Your task to perform on an android device: turn vacation reply on in the gmail app Image 0: 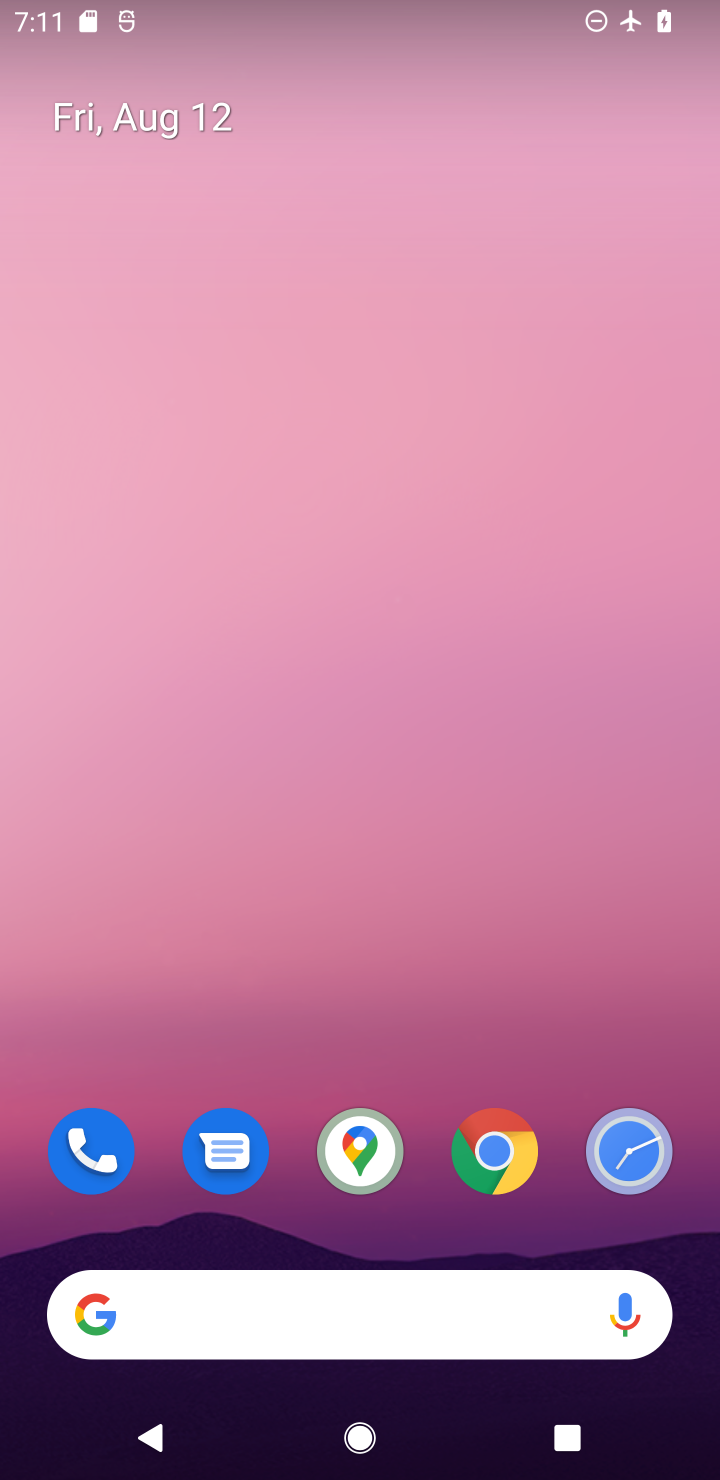
Step 0: drag from (540, 1014) to (522, 1)
Your task to perform on an android device: turn vacation reply on in the gmail app Image 1: 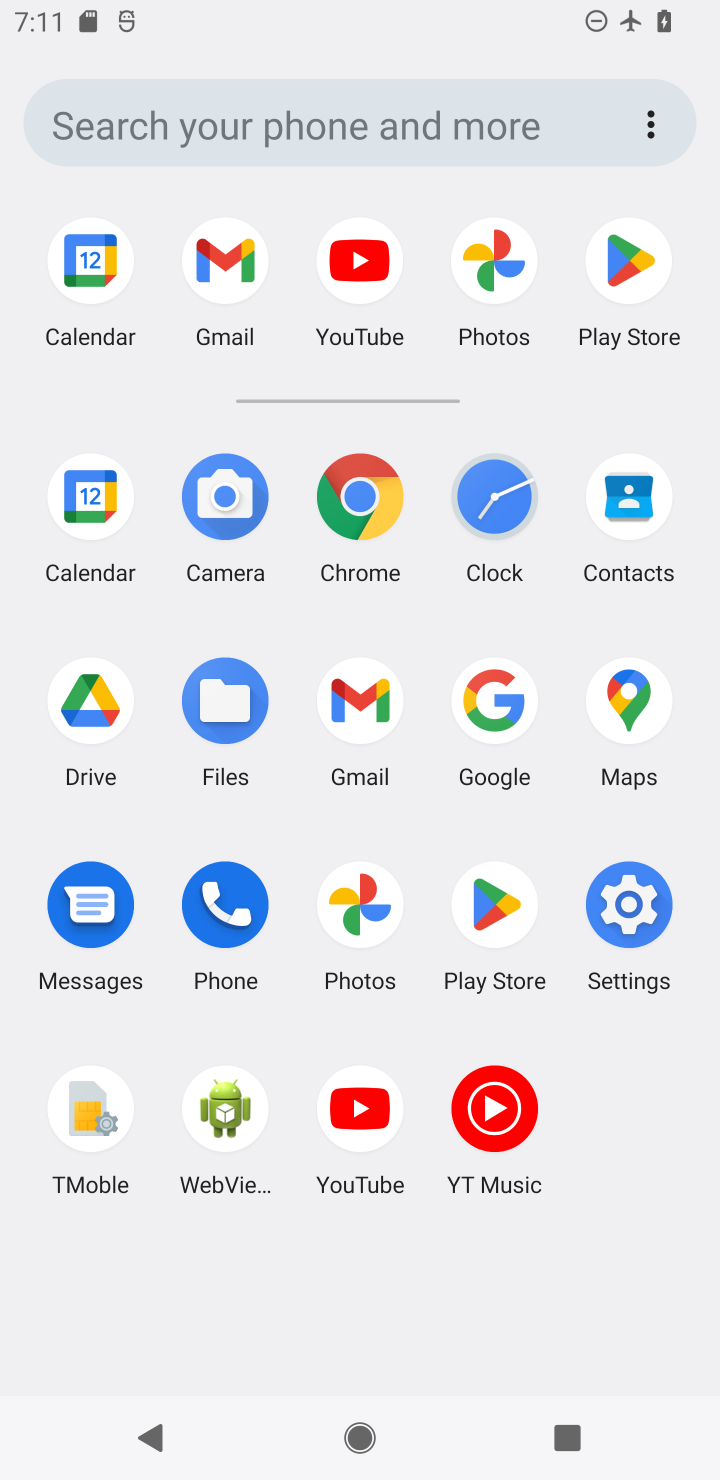
Step 1: click (382, 714)
Your task to perform on an android device: turn vacation reply on in the gmail app Image 2: 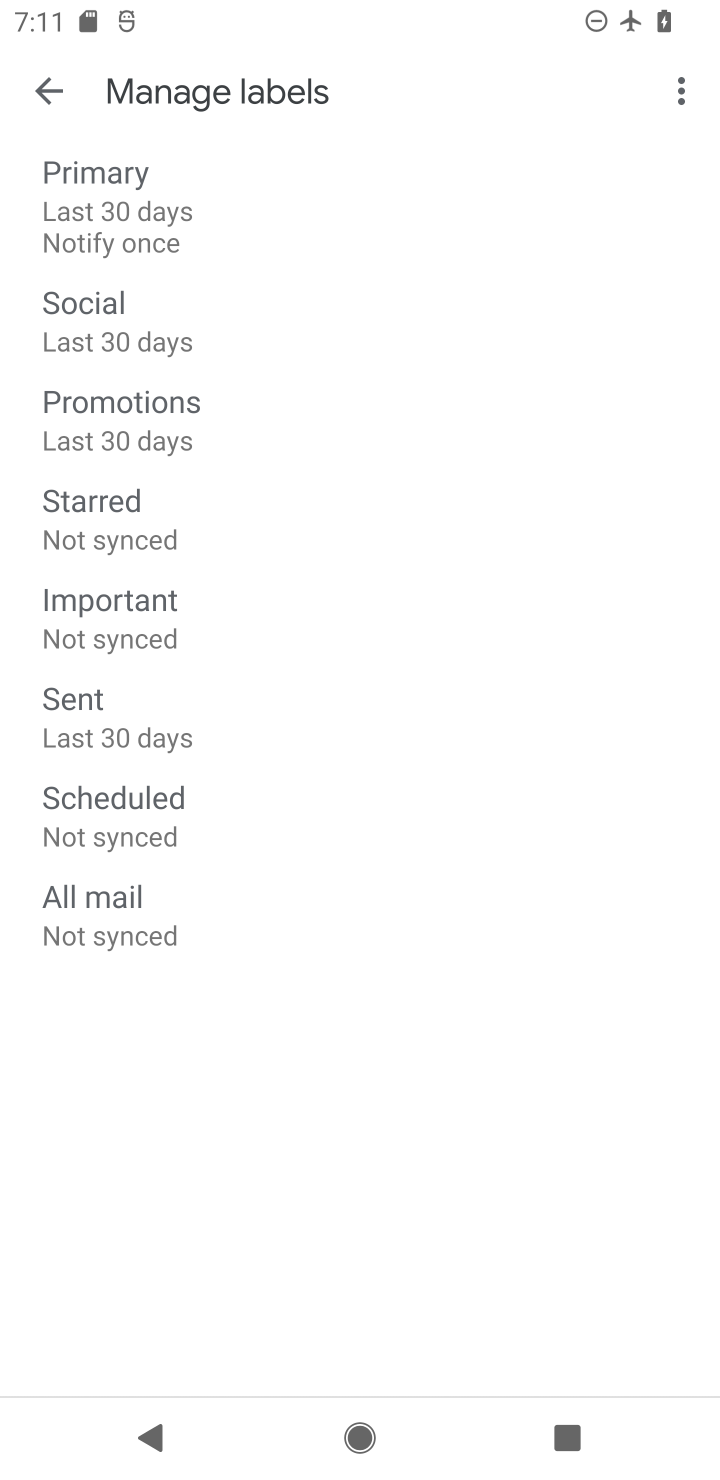
Step 2: press back button
Your task to perform on an android device: turn vacation reply on in the gmail app Image 3: 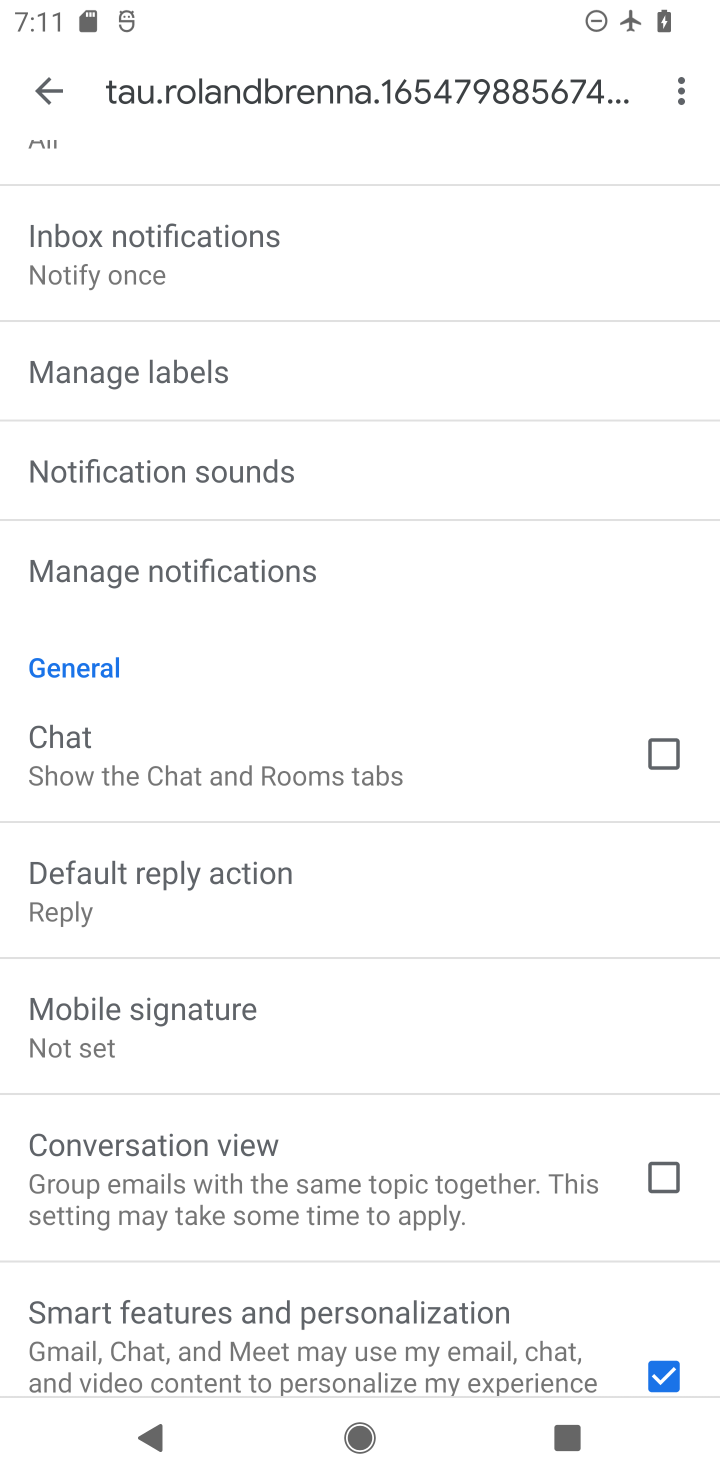
Step 3: drag from (549, 336) to (509, 1100)
Your task to perform on an android device: turn vacation reply on in the gmail app Image 4: 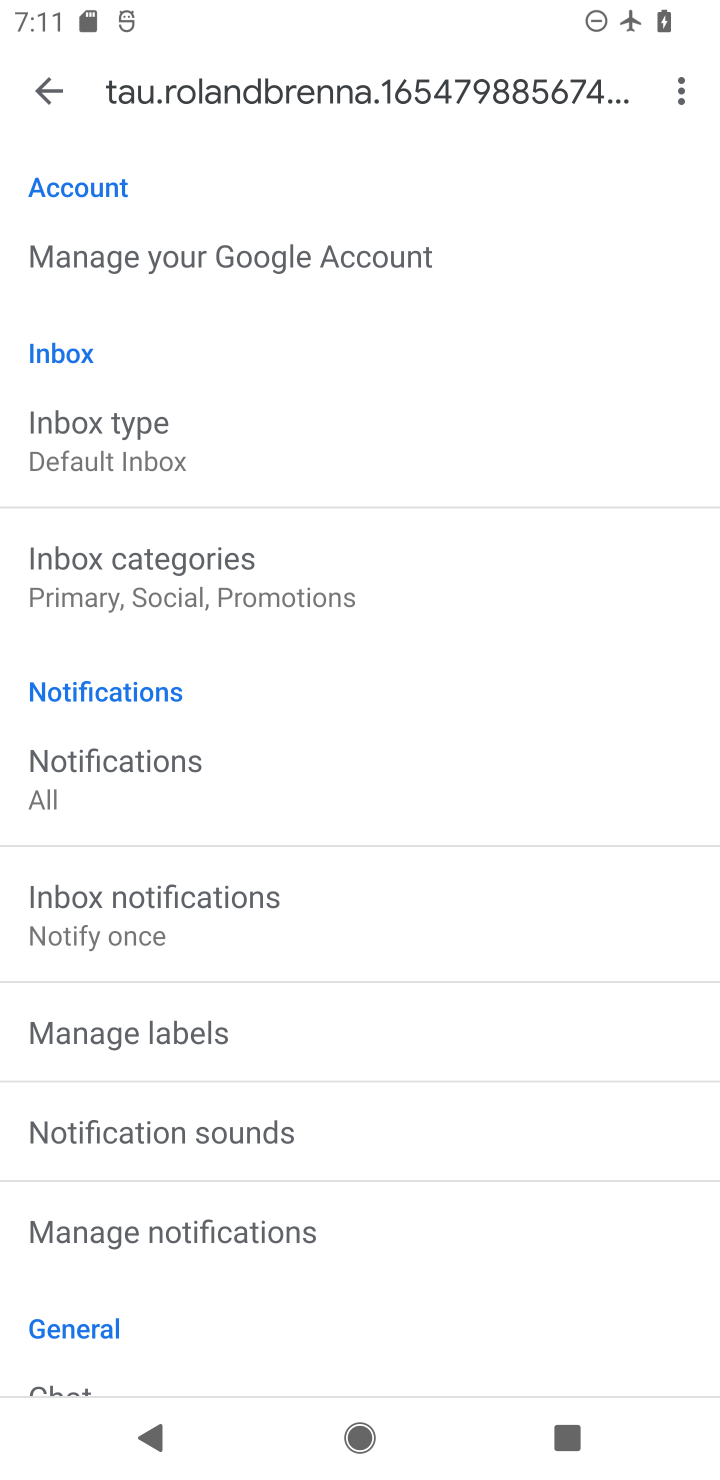
Step 4: drag from (491, 820) to (537, 235)
Your task to perform on an android device: turn vacation reply on in the gmail app Image 5: 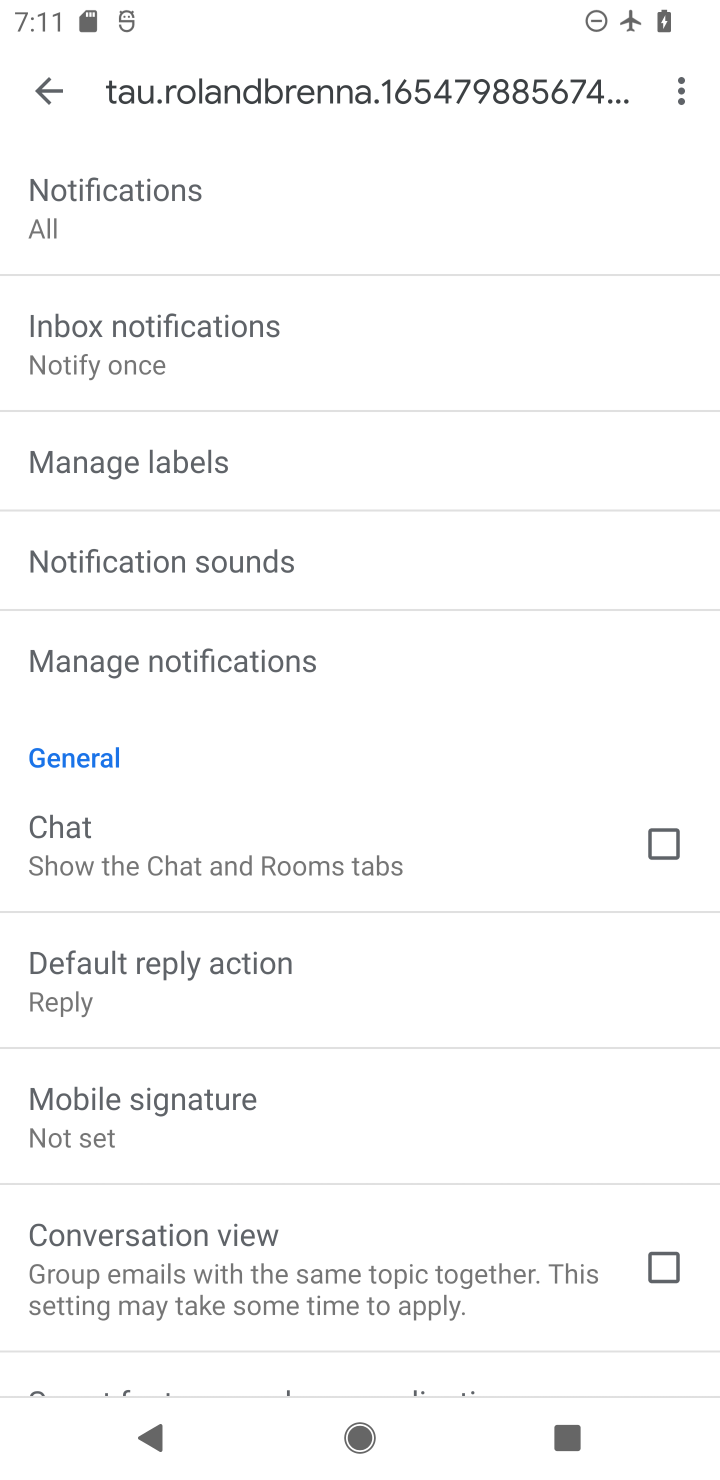
Step 5: drag from (417, 1097) to (471, 168)
Your task to perform on an android device: turn vacation reply on in the gmail app Image 6: 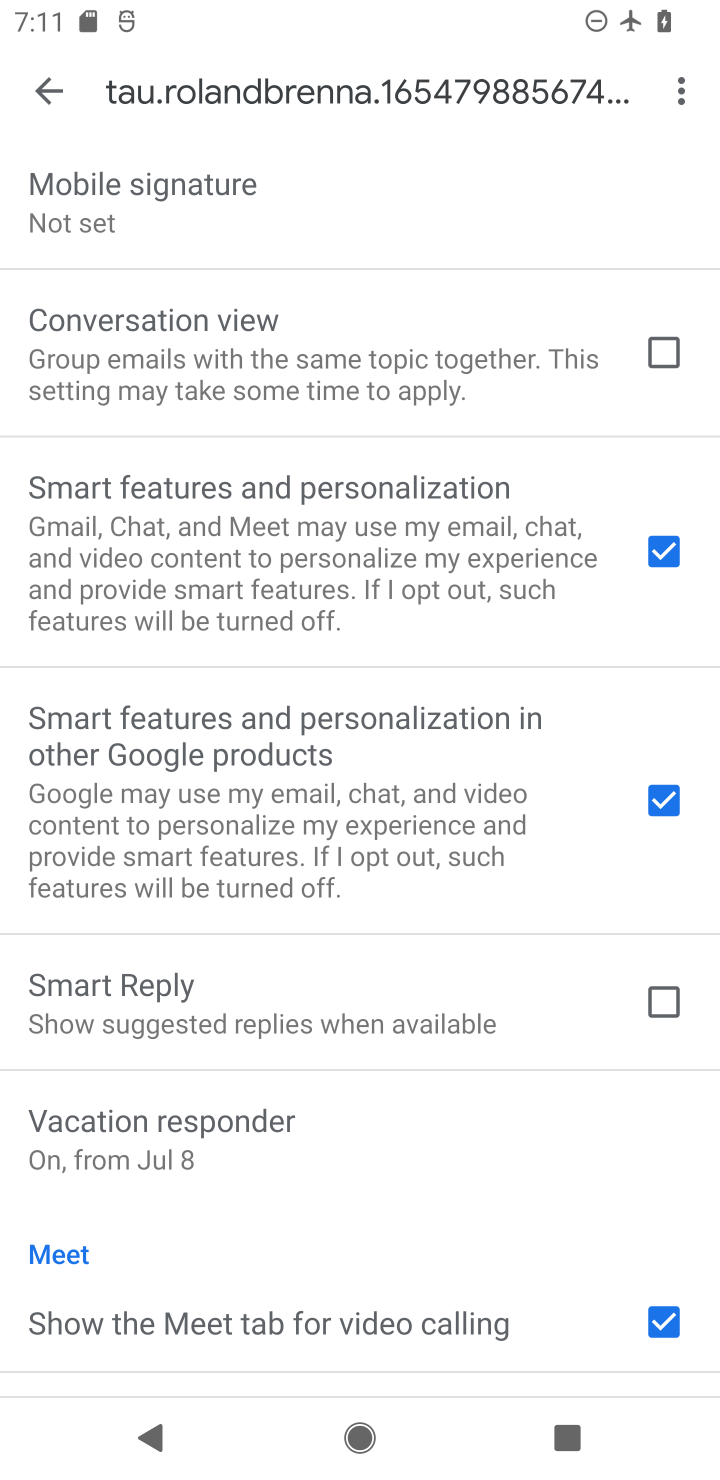
Step 6: click (592, 1147)
Your task to perform on an android device: turn vacation reply on in the gmail app Image 7: 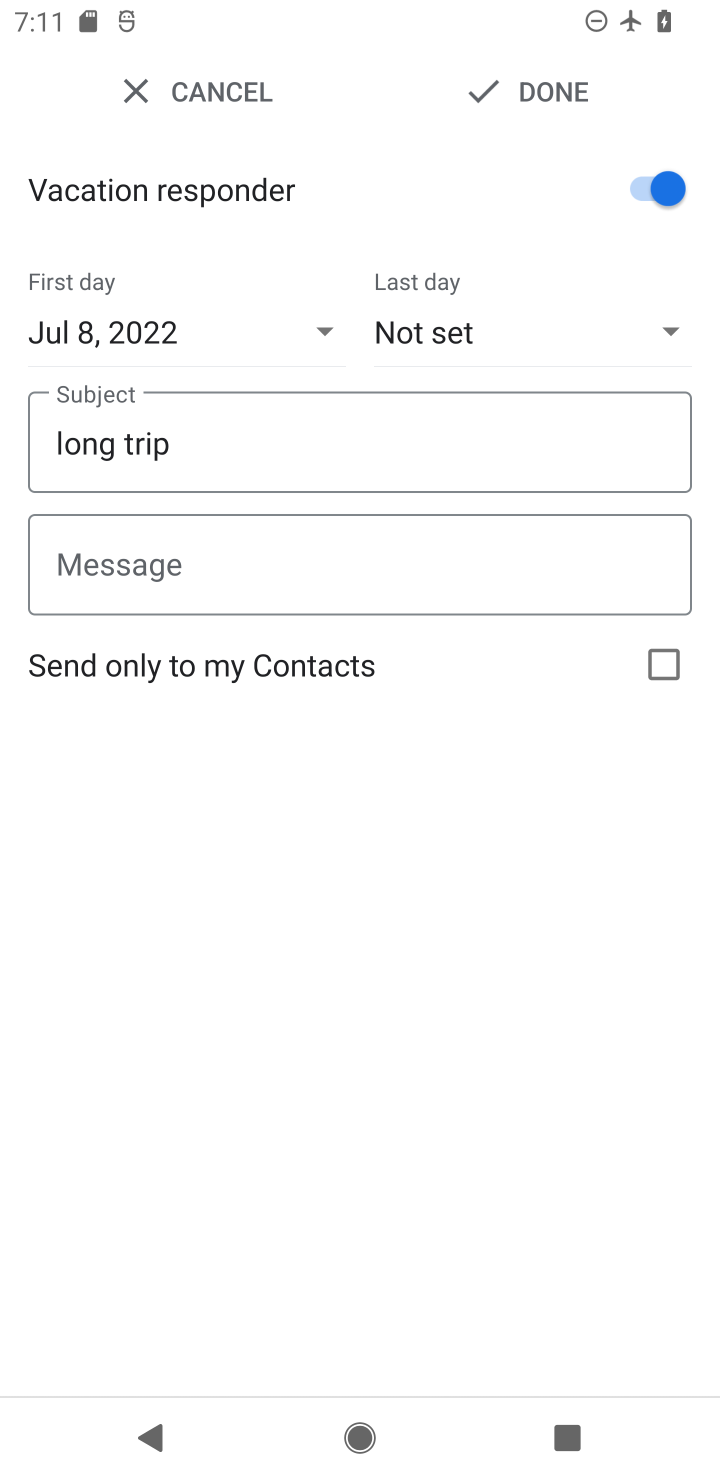
Step 7: task complete